Your task to perform on an android device: clear history in the chrome app Image 0: 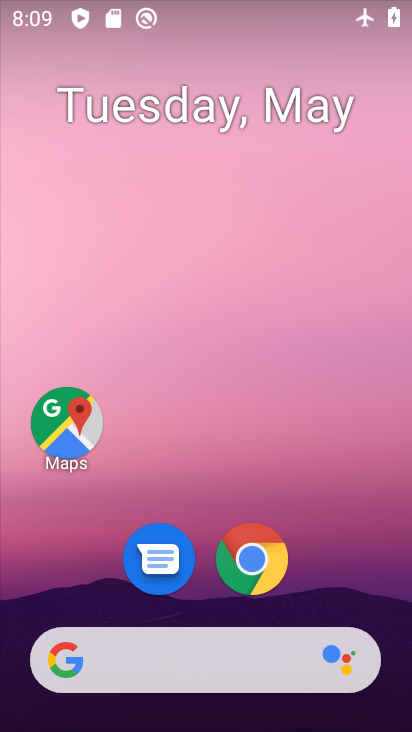
Step 0: click (262, 564)
Your task to perform on an android device: clear history in the chrome app Image 1: 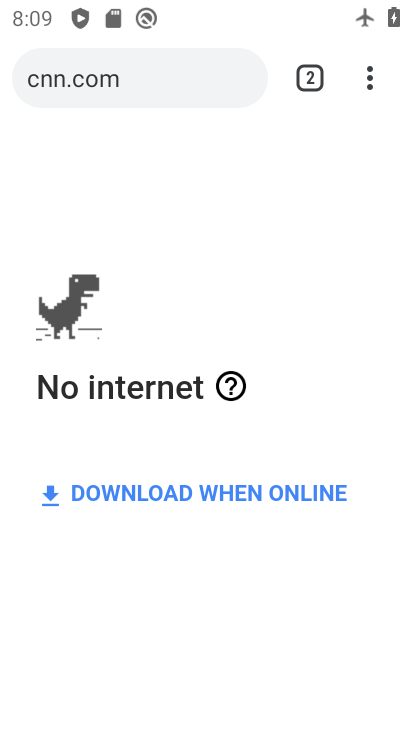
Step 1: click (363, 78)
Your task to perform on an android device: clear history in the chrome app Image 2: 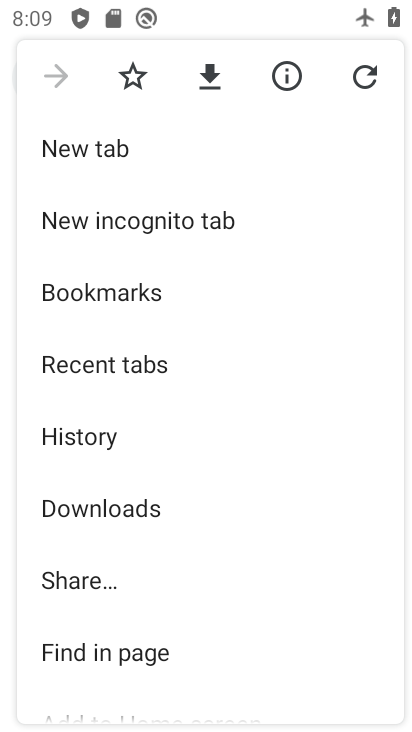
Step 2: click (85, 442)
Your task to perform on an android device: clear history in the chrome app Image 3: 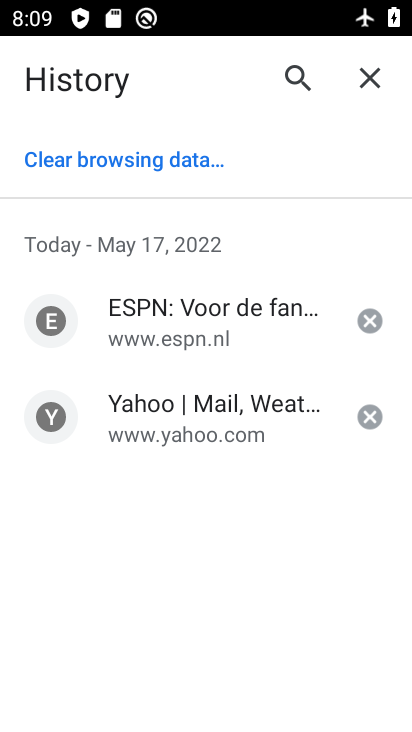
Step 3: click (82, 162)
Your task to perform on an android device: clear history in the chrome app Image 4: 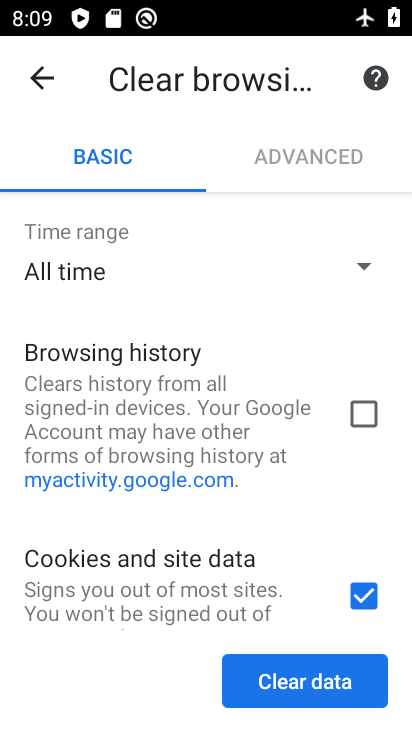
Step 4: click (262, 665)
Your task to perform on an android device: clear history in the chrome app Image 5: 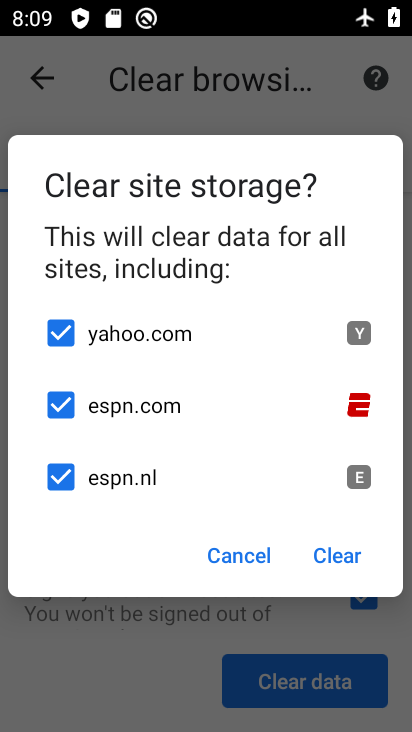
Step 5: click (349, 549)
Your task to perform on an android device: clear history in the chrome app Image 6: 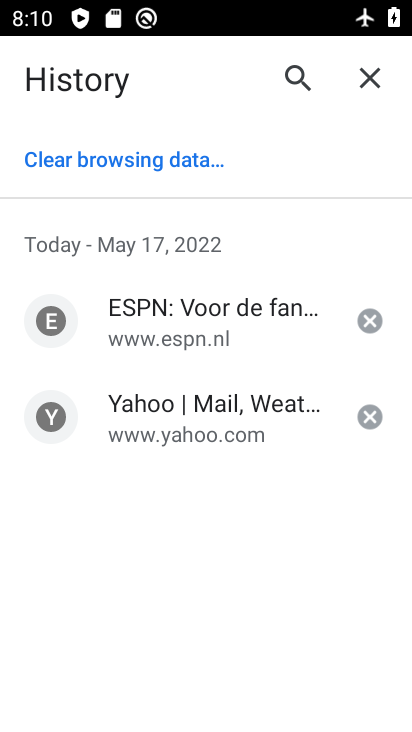
Step 6: task complete